Your task to perform on an android device: Open Google Maps Image 0: 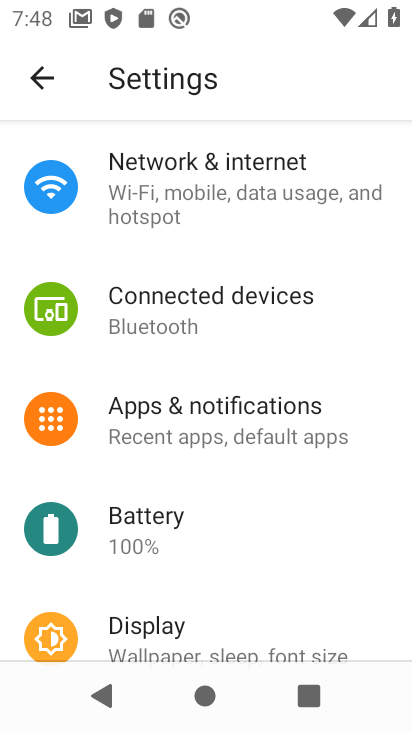
Step 0: press home button
Your task to perform on an android device: Open Google Maps Image 1: 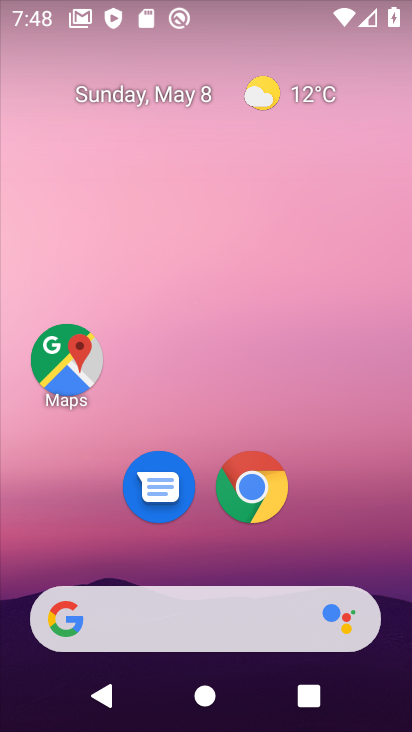
Step 1: click (66, 339)
Your task to perform on an android device: Open Google Maps Image 2: 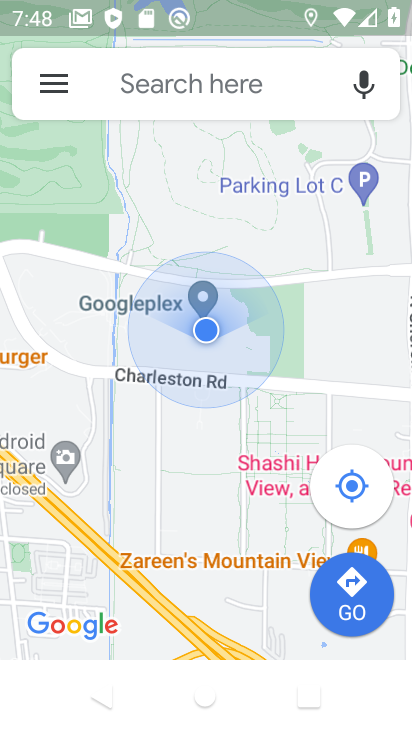
Step 2: task complete